Your task to perform on an android device: change your default location settings in chrome Image 0: 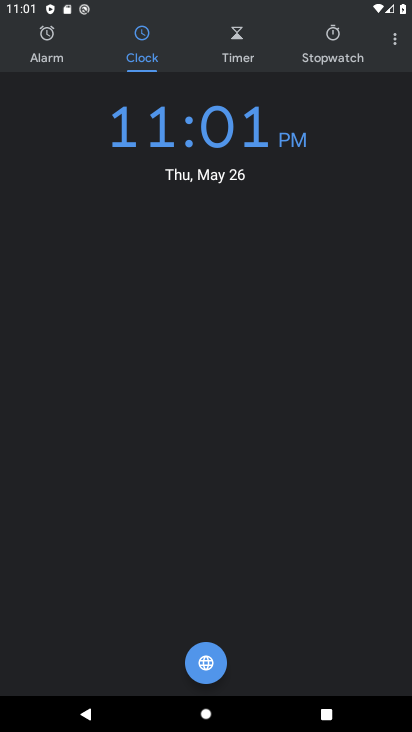
Step 0: press home button
Your task to perform on an android device: change your default location settings in chrome Image 1: 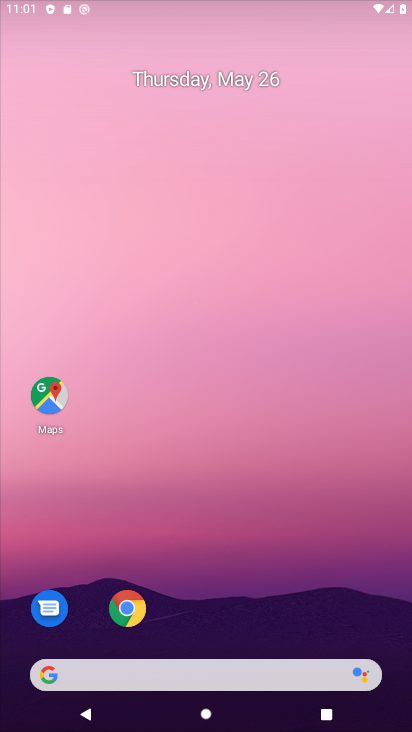
Step 1: drag from (316, 633) to (282, 155)
Your task to perform on an android device: change your default location settings in chrome Image 2: 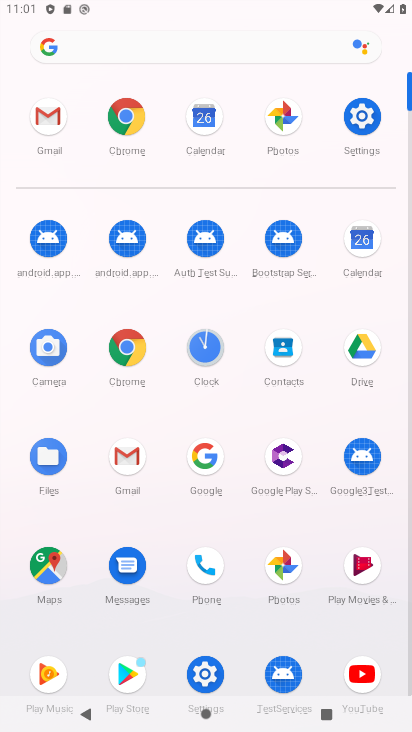
Step 2: click (124, 335)
Your task to perform on an android device: change your default location settings in chrome Image 3: 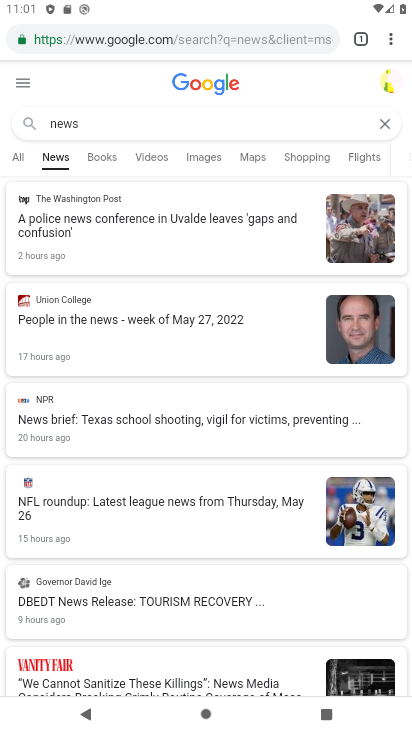
Step 3: drag from (394, 28) to (281, 466)
Your task to perform on an android device: change your default location settings in chrome Image 4: 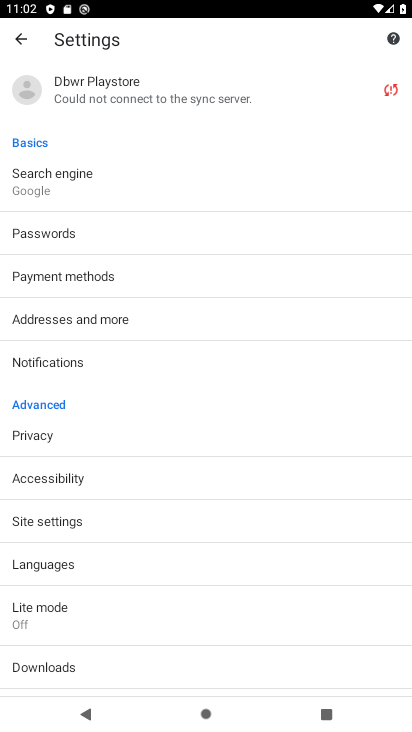
Step 4: click (101, 516)
Your task to perform on an android device: change your default location settings in chrome Image 5: 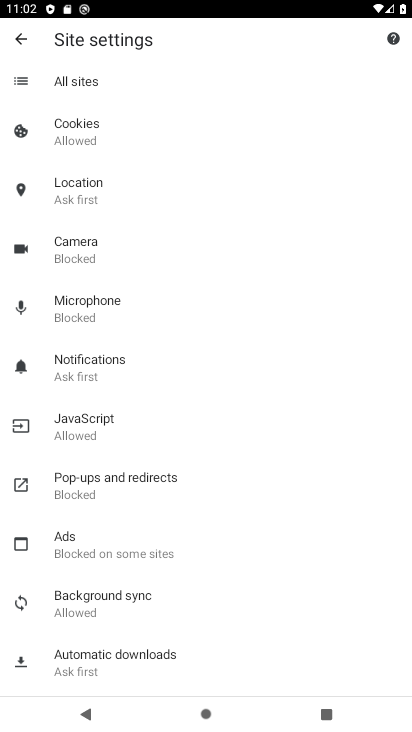
Step 5: click (98, 184)
Your task to perform on an android device: change your default location settings in chrome Image 6: 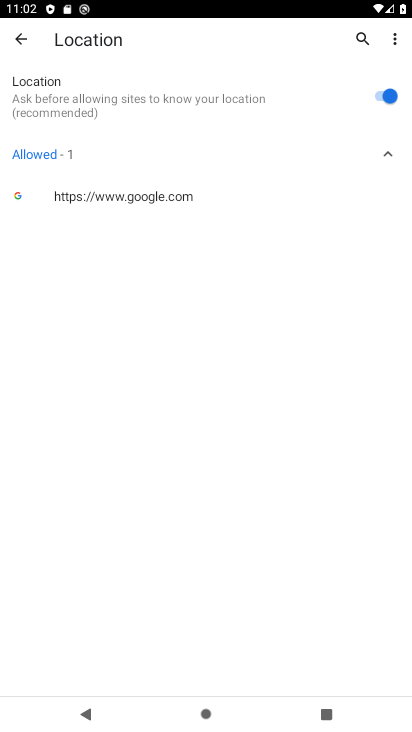
Step 6: click (381, 93)
Your task to perform on an android device: change your default location settings in chrome Image 7: 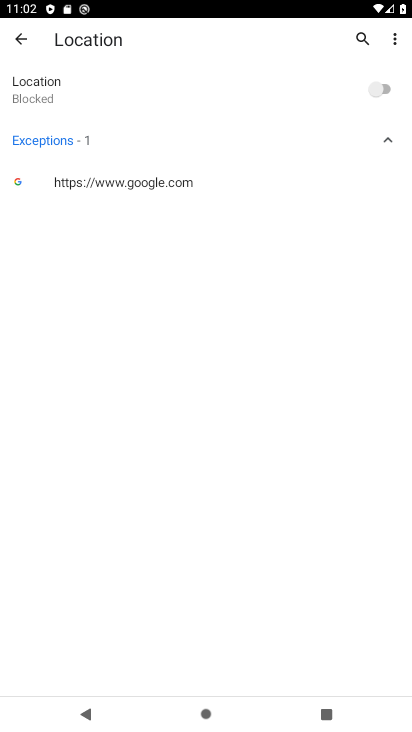
Step 7: task complete